Your task to perform on an android device: all mails in gmail Image 0: 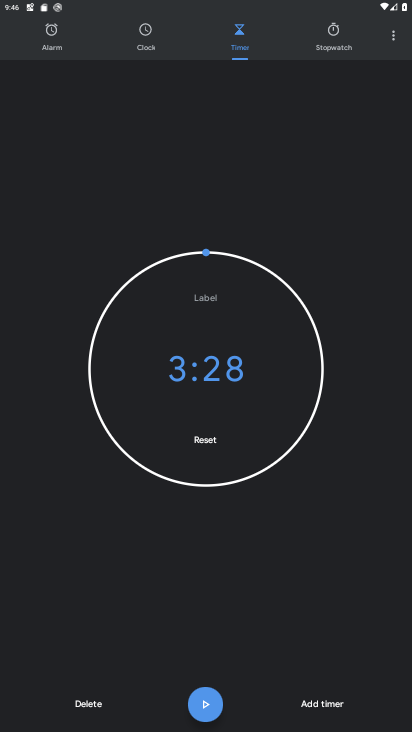
Step 0: press home button
Your task to perform on an android device: all mails in gmail Image 1: 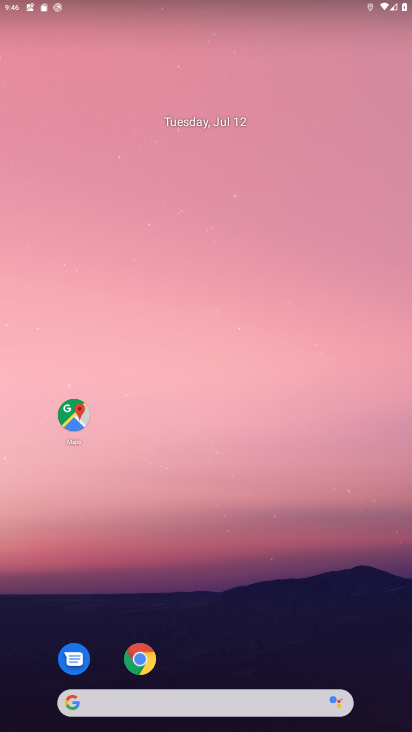
Step 1: drag from (332, 662) to (152, 24)
Your task to perform on an android device: all mails in gmail Image 2: 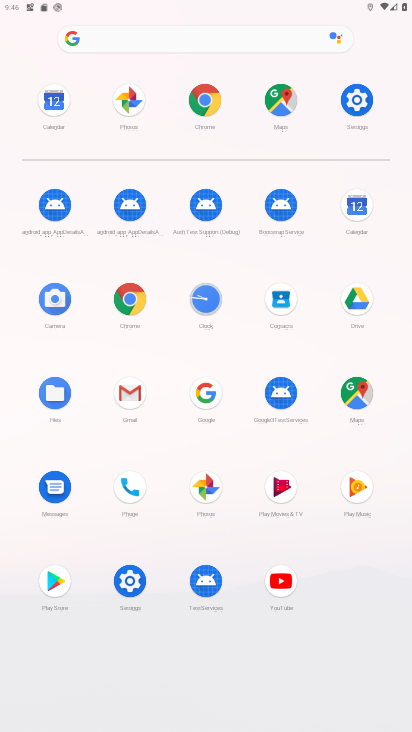
Step 2: click (132, 417)
Your task to perform on an android device: all mails in gmail Image 3: 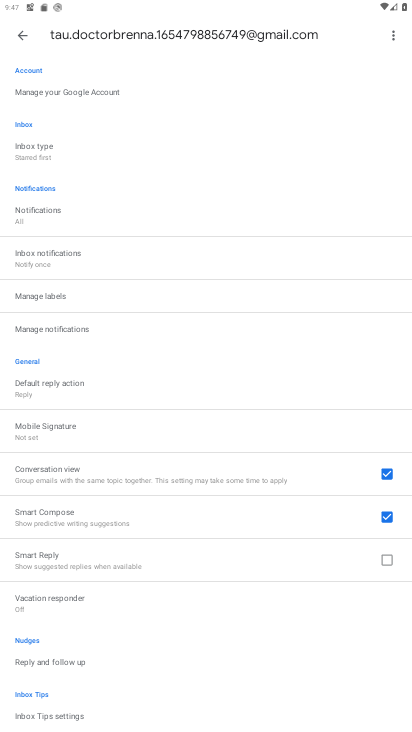
Step 3: click (18, 25)
Your task to perform on an android device: all mails in gmail Image 4: 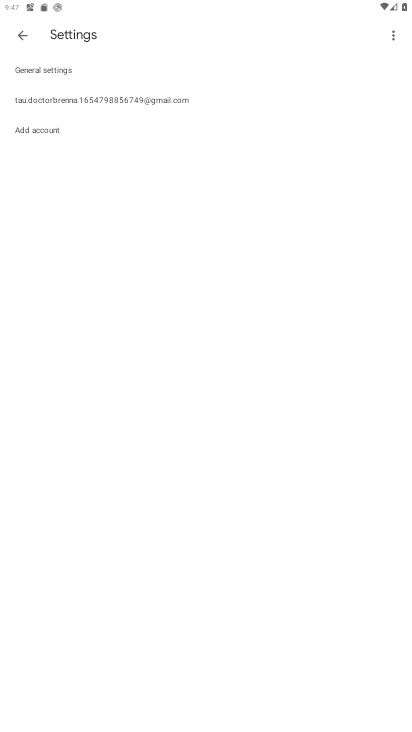
Step 4: click (26, 37)
Your task to perform on an android device: all mails in gmail Image 5: 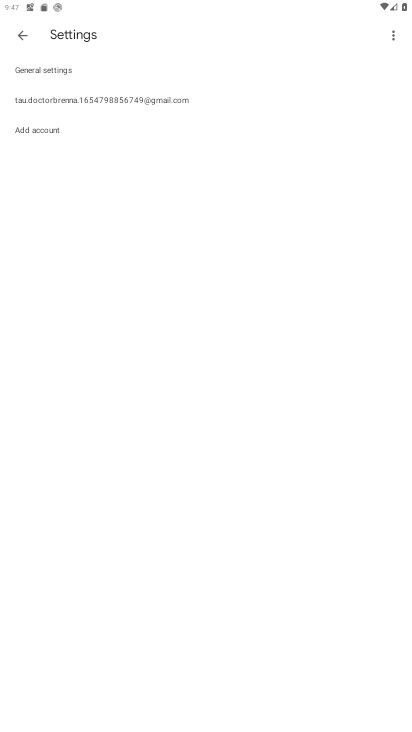
Step 5: click (26, 37)
Your task to perform on an android device: all mails in gmail Image 6: 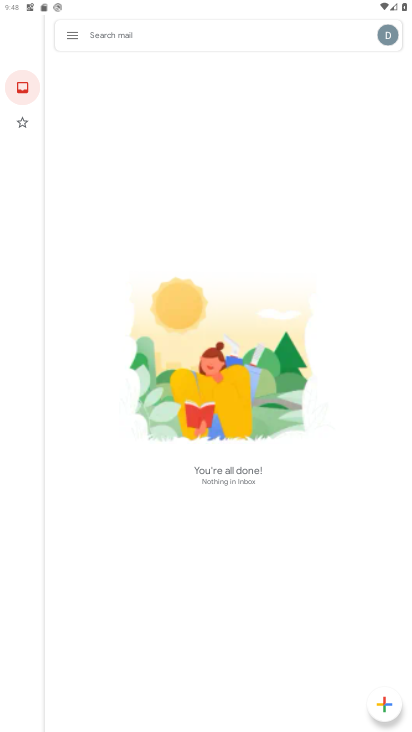
Step 6: click (67, 36)
Your task to perform on an android device: all mails in gmail Image 7: 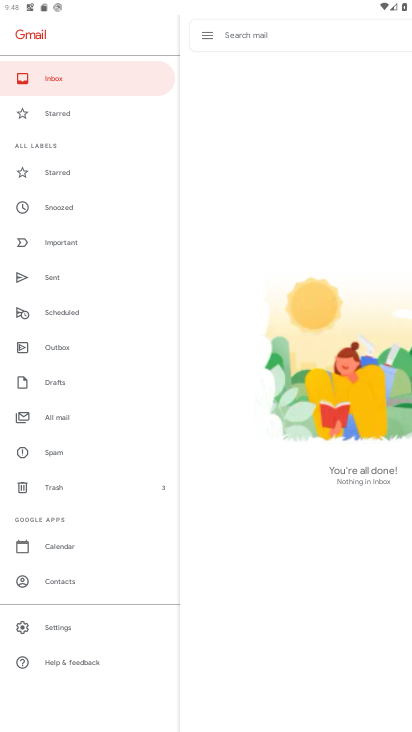
Step 7: click (64, 410)
Your task to perform on an android device: all mails in gmail Image 8: 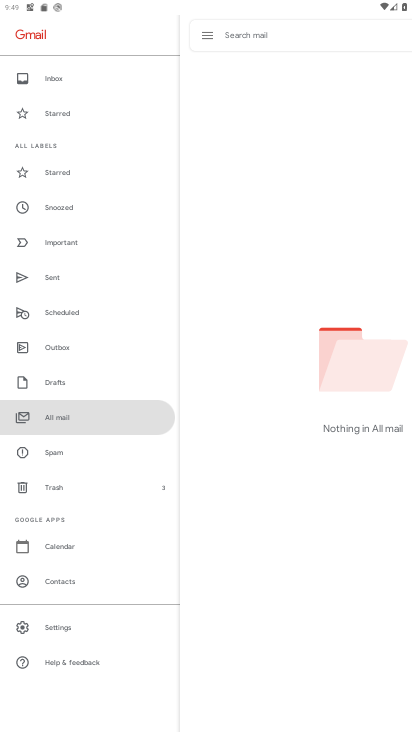
Step 8: task complete